Your task to perform on an android device: turn vacation reply on in the gmail app Image 0: 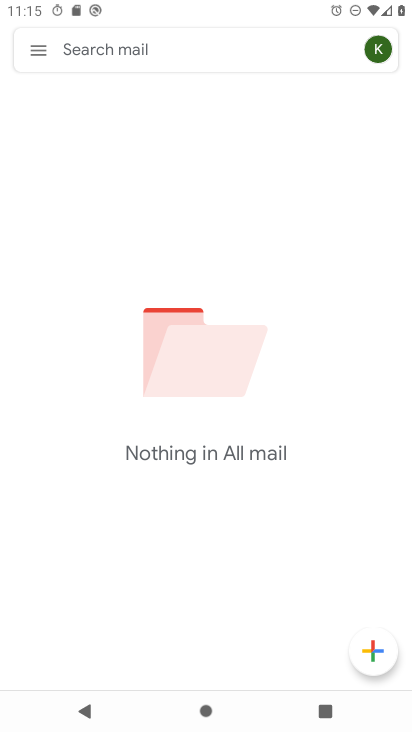
Step 0: click (32, 47)
Your task to perform on an android device: turn vacation reply on in the gmail app Image 1: 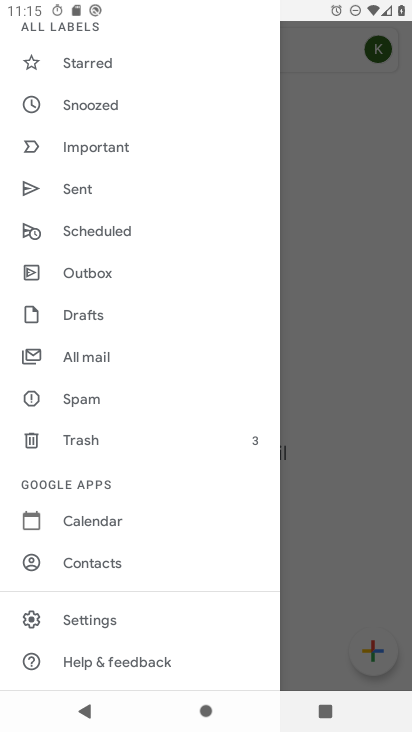
Step 1: click (93, 623)
Your task to perform on an android device: turn vacation reply on in the gmail app Image 2: 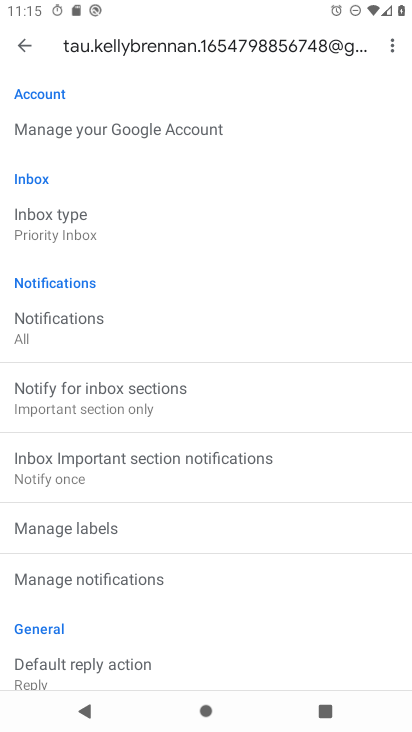
Step 2: drag from (111, 574) to (248, 99)
Your task to perform on an android device: turn vacation reply on in the gmail app Image 3: 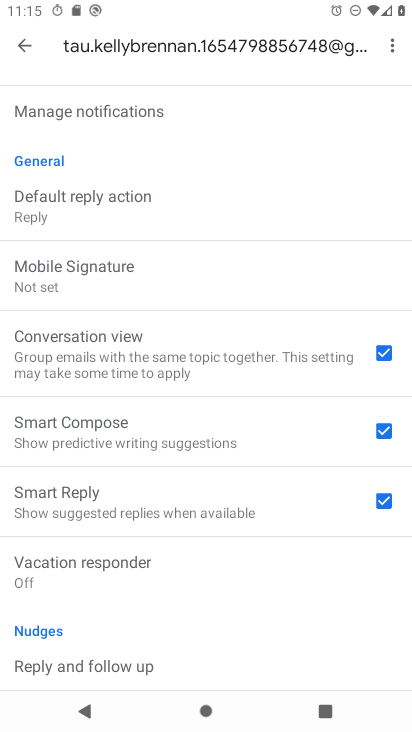
Step 3: click (123, 568)
Your task to perform on an android device: turn vacation reply on in the gmail app Image 4: 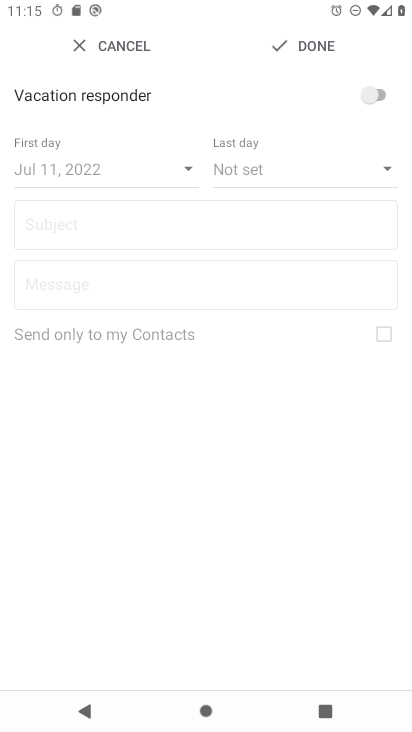
Step 4: click (366, 91)
Your task to perform on an android device: turn vacation reply on in the gmail app Image 5: 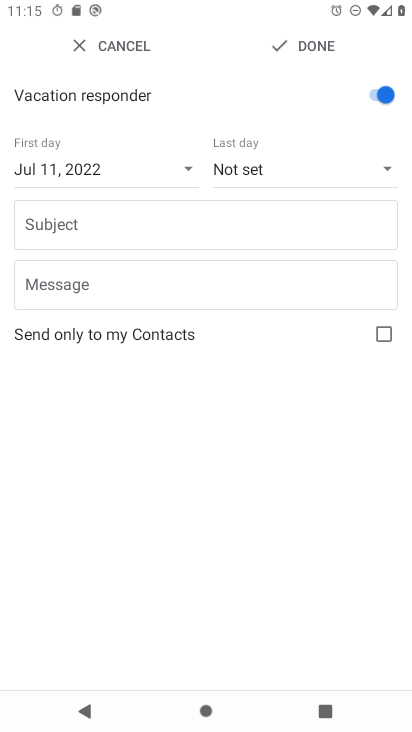
Step 5: task complete